Your task to perform on an android device: turn off airplane mode Image 0: 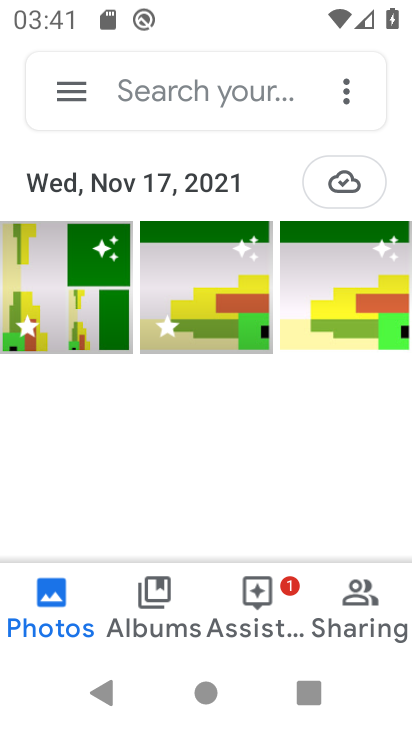
Step 0: press home button
Your task to perform on an android device: turn off airplane mode Image 1: 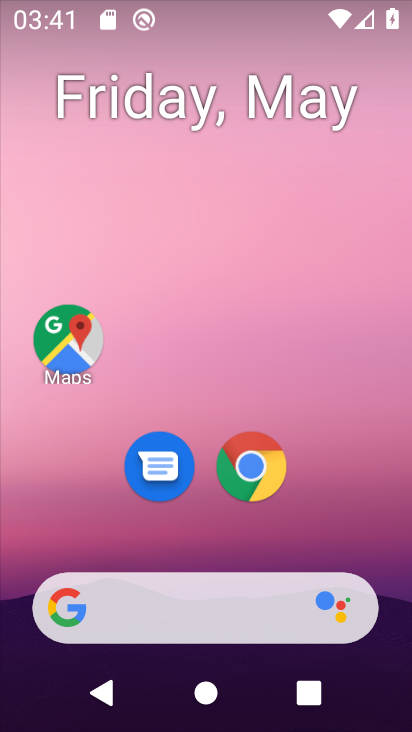
Step 1: click (385, 220)
Your task to perform on an android device: turn off airplane mode Image 2: 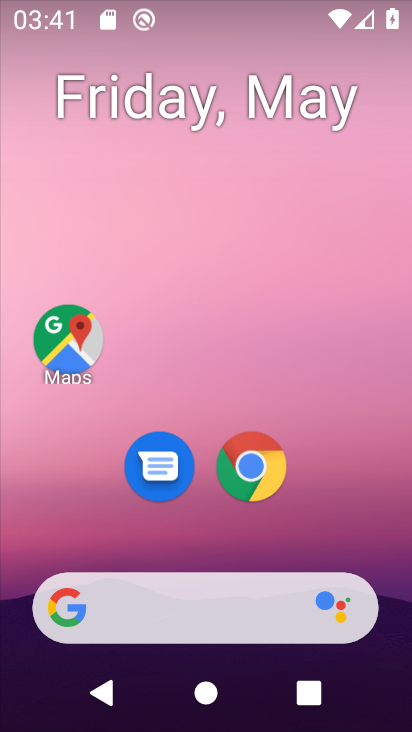
Step 2: drag from (389, 643) to (393, 205)
Your task to perform on an android device: turn off airplane mode Image 3: 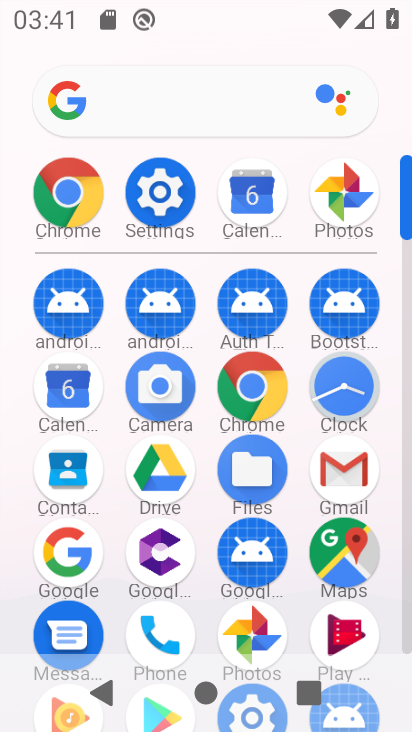
Step 3: click (149, 199)
Your task to perform on an android device: turn off airplane mode Image 4: 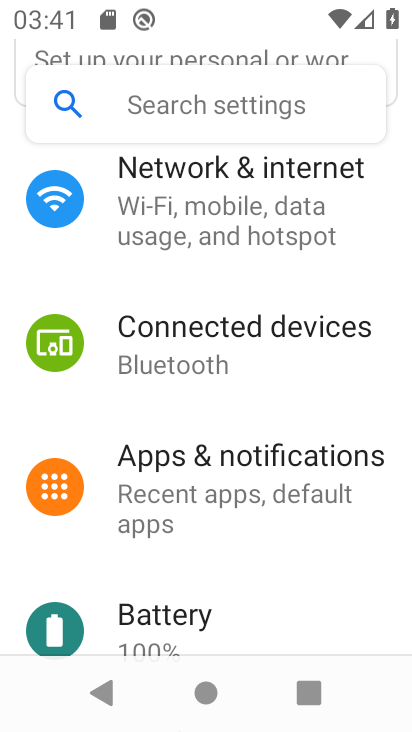
Step 4: click (201, 187)
Your task to perform on an android device: turn off airplane mode Image 5: 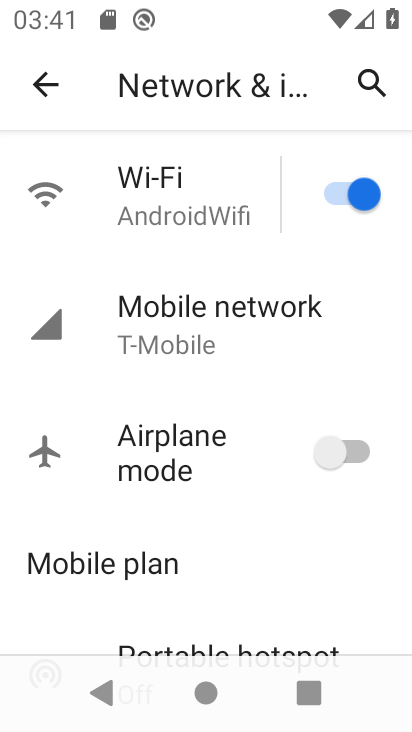
Step 5: task complete